Your task to perform on an android device: Open battery settings Image 0: 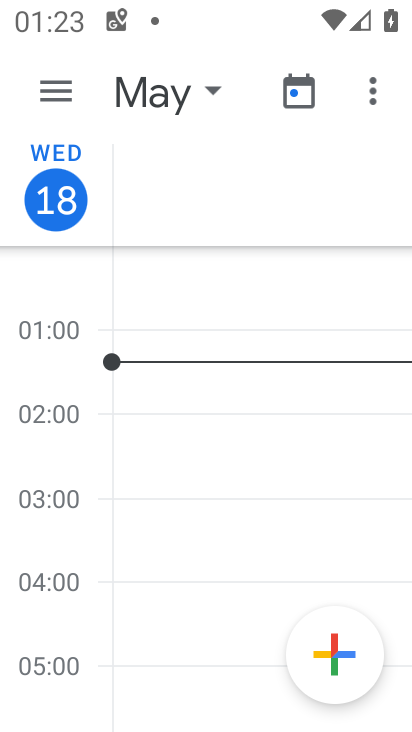
Step 0: press home button
Your task to perform on an android device: Open battery settings Image 1: 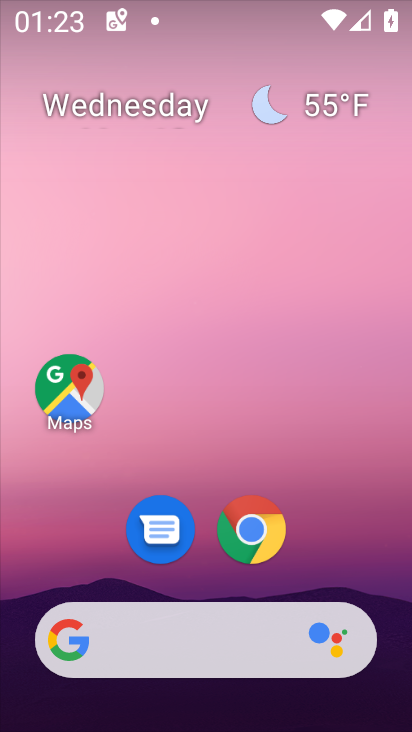
Step 1: drag from (200, 723) to (194, 171)
Your task to perform on an android device: Open battery settings Image 2: 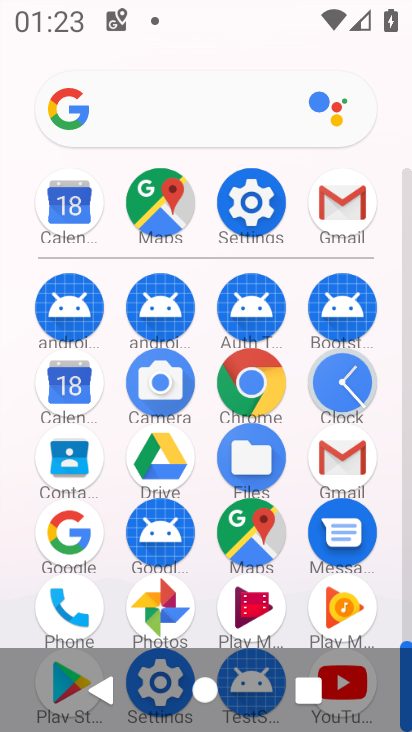
Step 2: click (256, 199)
Your task to perform on an android device: Open battery settings Image 3: 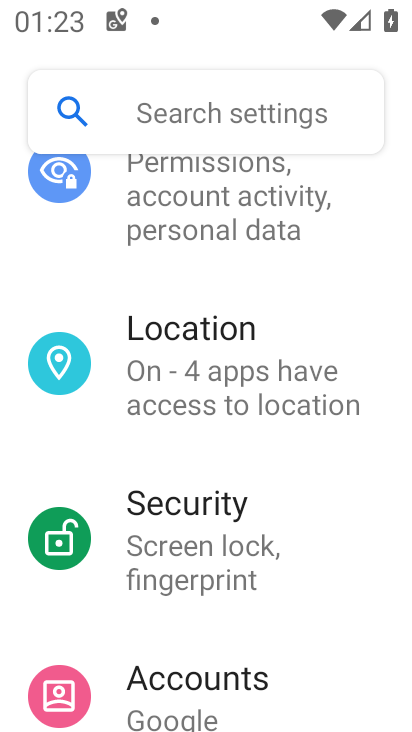
Step 3: drag from (282, 199) to (284, 525)
Your task to perform on an android device: Open battery settings Image 4: 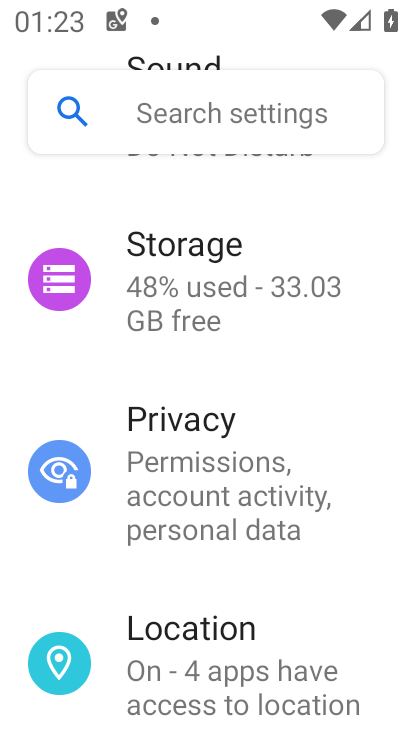
Step 4: drag from (257, 239) to (246, 586)
Your task to perform on an android device: Open battery settings Image 5: 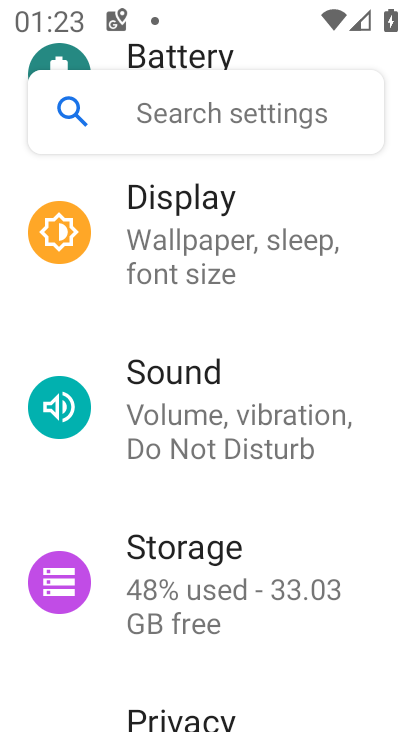
Step 5: drag from (245, 202) to (241, 412)
Your task to perform on an android device: Open battery settings Image 6: 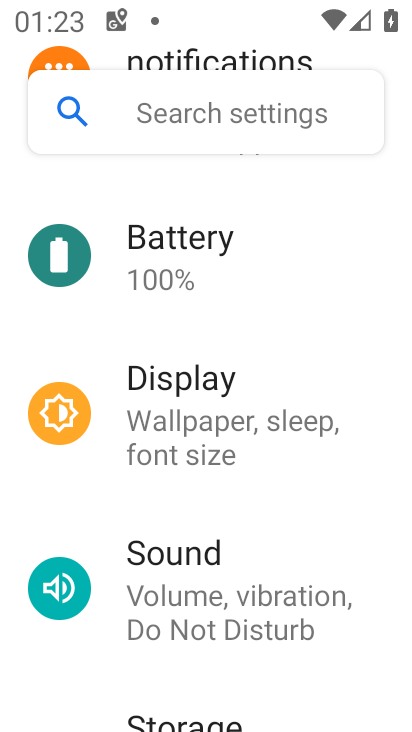
Step 6: click (169, 271)
Your task to perform on an android device: Open battery settings Image 7: 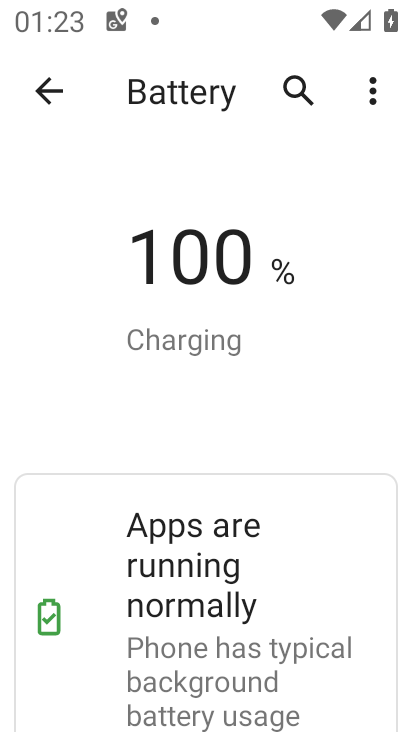
Step 7: task complete